Your task to perform on an android device: Open Amazon Image 0: 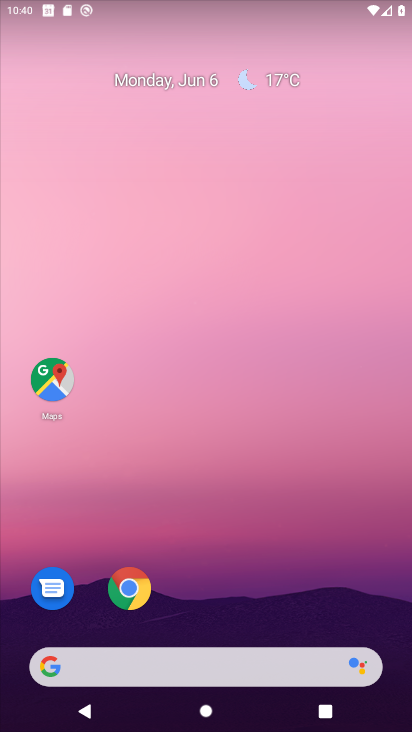
Step 0: click (128, 595)
Your task to perform on an android device: Open Amazon Image 1: 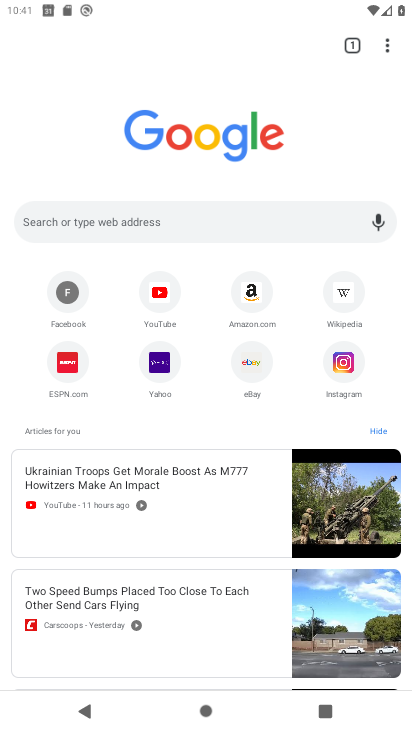
Step 1: click (256, 291)
Your task to perform on an android device: Open Amazon Image 2: 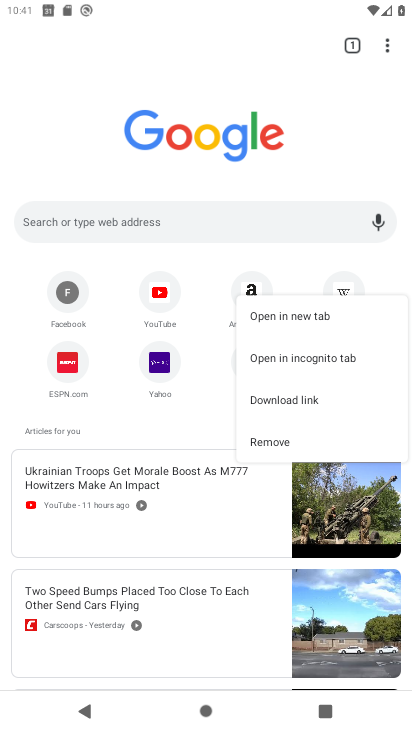
Step 2: click (256, 291)
Your task to perform on an android device: Open Amazon Image 3: 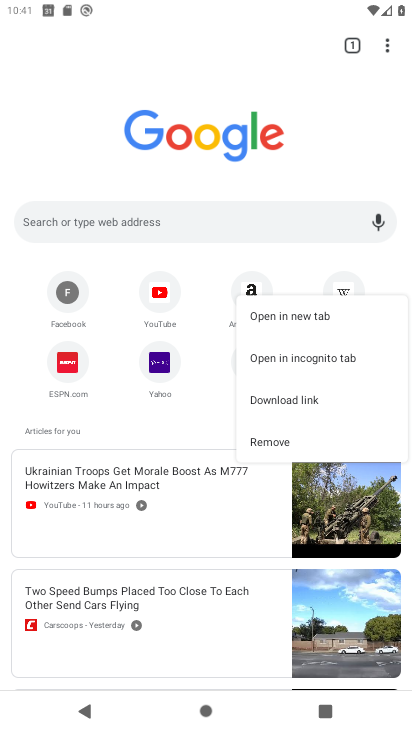
Step 3: click (252, 288)
Your task to perform on an android device: Open Amazon Image 4: 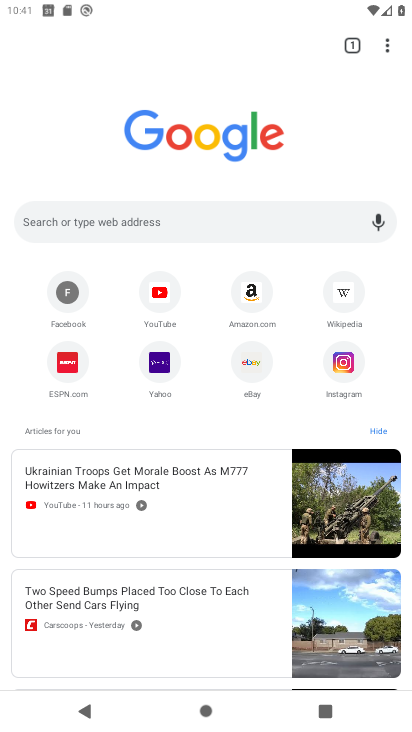
Step 4: click (262, 291)
Your task to perform on an android device: Open Amazon Image 5: 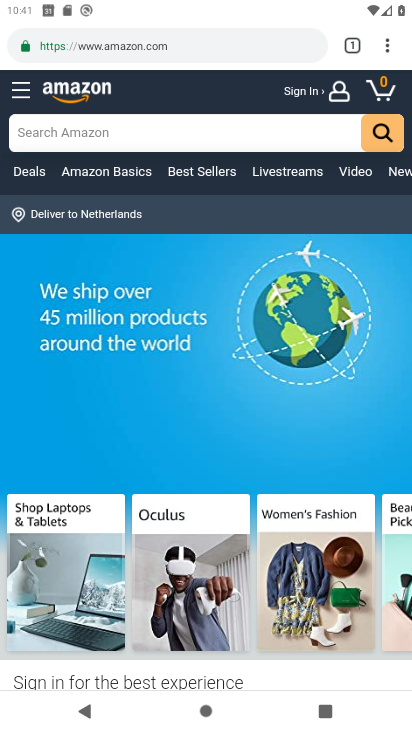
Step 5: task complete